Your task to perform on an android device: Go to accessibility settings Image 0: 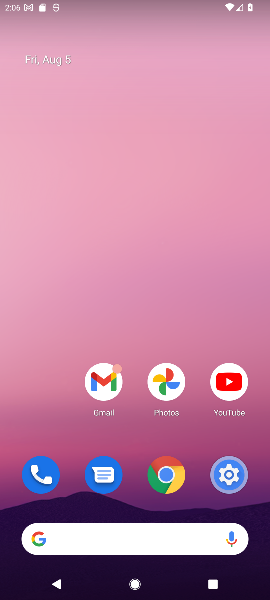
Step 0: click (224, 475)
Your task to perform on an android device: Go to accessibility settings Image 1: 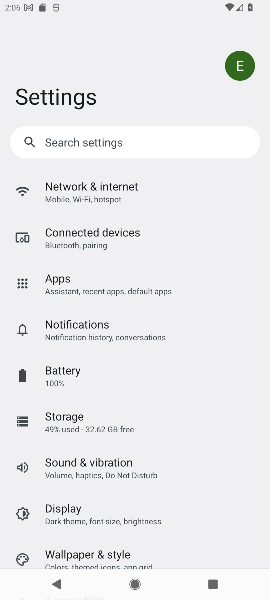
Step 1: drag from (199, 525) to (197, 238)
Your task to perform on an android device: Go to accessibility settings Image 2: 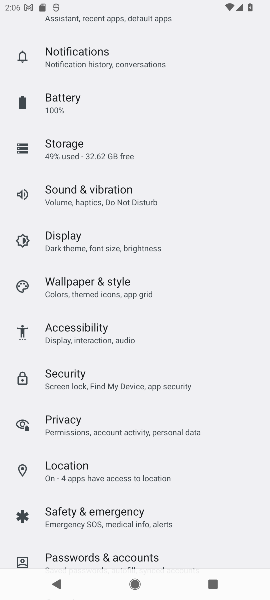
Step 2: drag from (193, 508) to (190, 347)
Your task to perform on an android device: Go to accessibility settings Image 3: 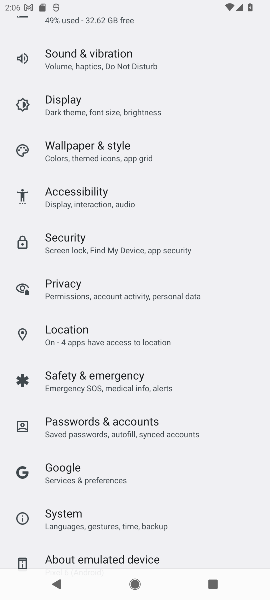
Step 3: click (68, 190)
Your task to perform on an android device: Go to accessibility settings Image 4: 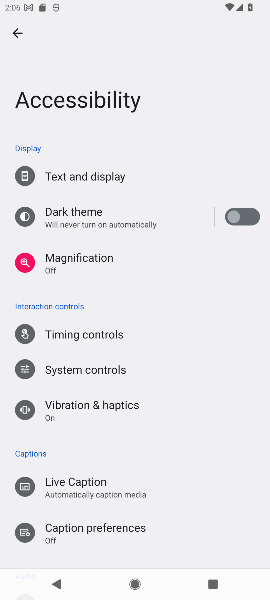
Step 4: task complete